Your task to perform on an android device: Go to Yahoo.com Image 0: 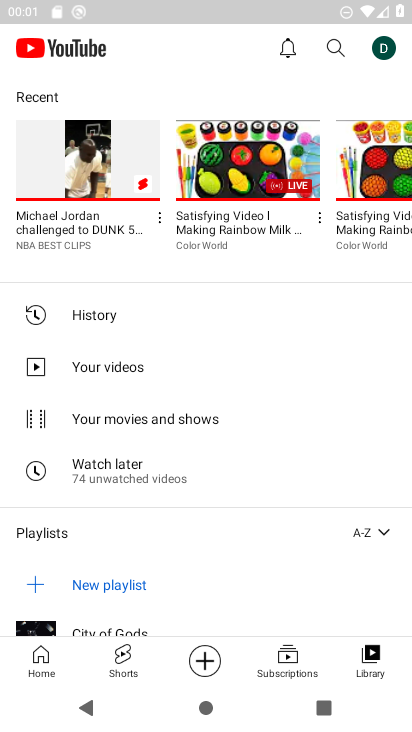
Step 0: press home button
Your task to perform on an android device: Go to Yahoo.com Image 1: 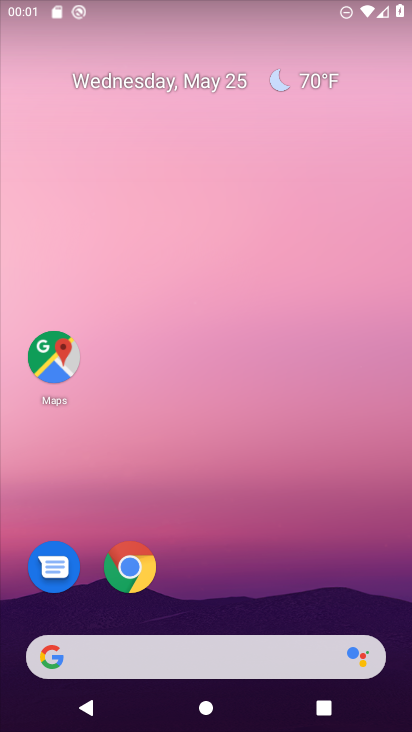
Step 1: click (140, 564)
Your task to perform on an android device: Go to Yahoo.com Image 2: 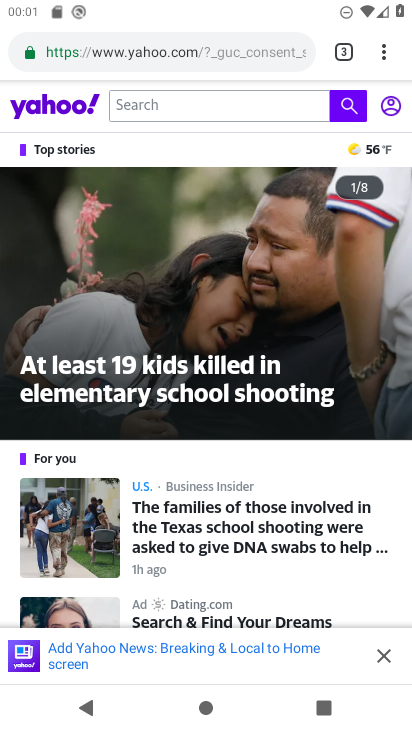
Step 2: task complete